Your task to perform on an android device: Show me the alarms in the clock app Image 0: 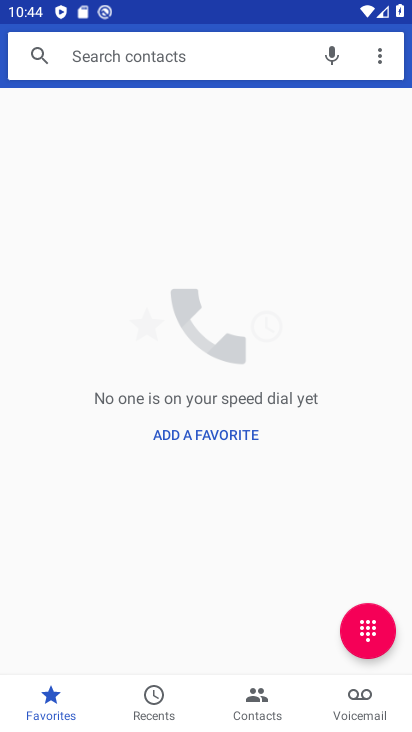
Step 0: press back button
Your task to perform on an android device: Show me the alarms in the clock app Image 1: 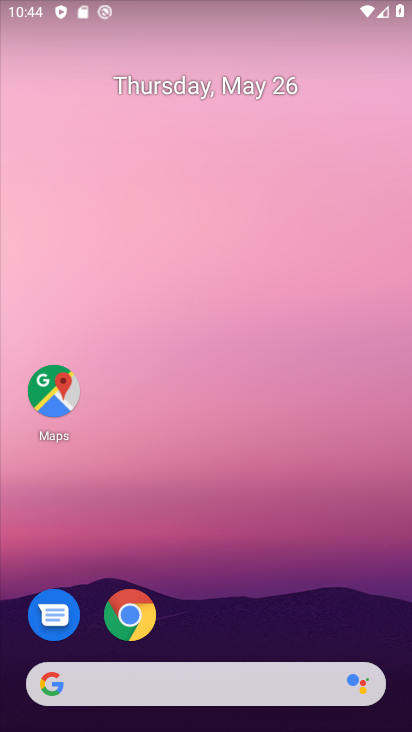
Step 1: drag from (317, 593) to (298, 80)
Your task to perform on an android device: Show me the alarms in the clock app Image 2: 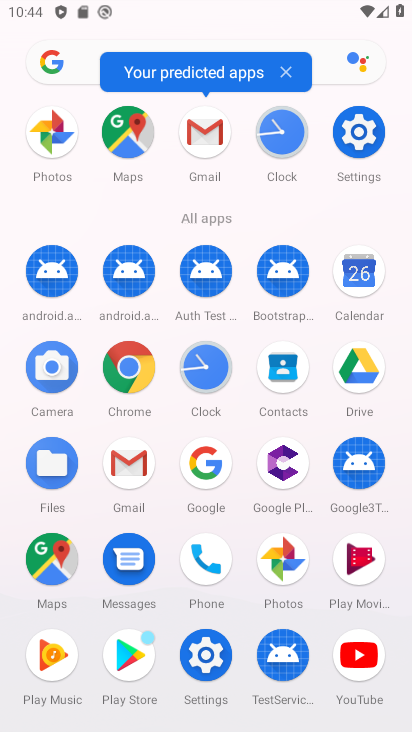
Step 2: click (207, 379)
Your task to perform on an android device: Show me the alarms in the clock app Image 3: 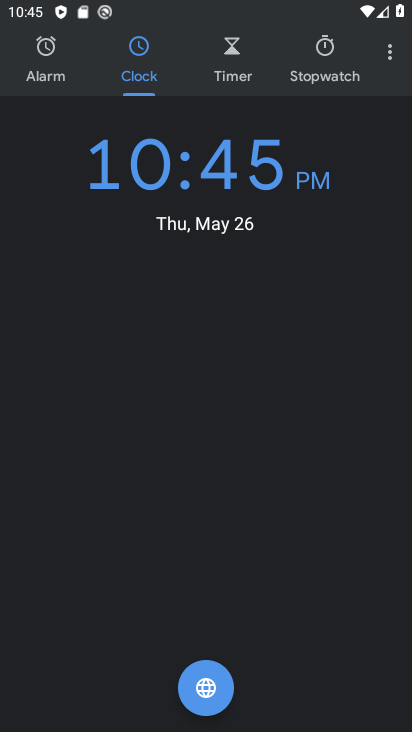
Step 3: click (46, 64)
Your task to perform on an android device: Show me the alarms in the clock app Image 4: 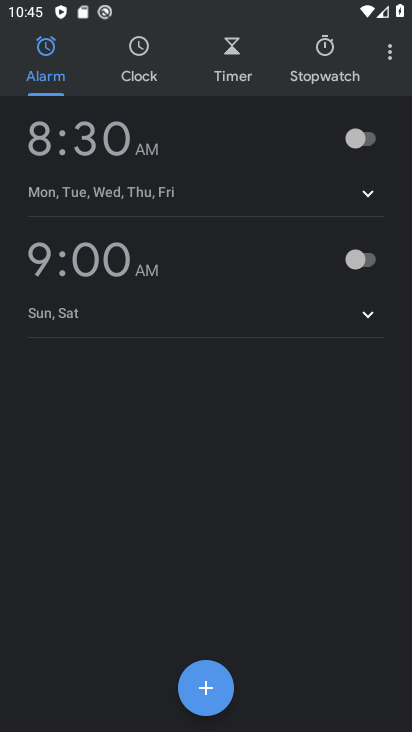
Step 4: task complete